Your task to perform on an android device: Open Google Chrome and open the bookmarks view Image 0: 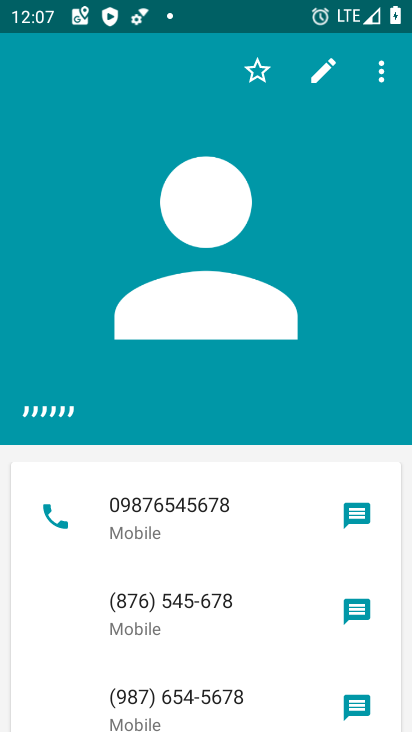
Step 0: press home button
Your task to perform on an android device: Open Google Chrome and open the bookmarks view Image 1: 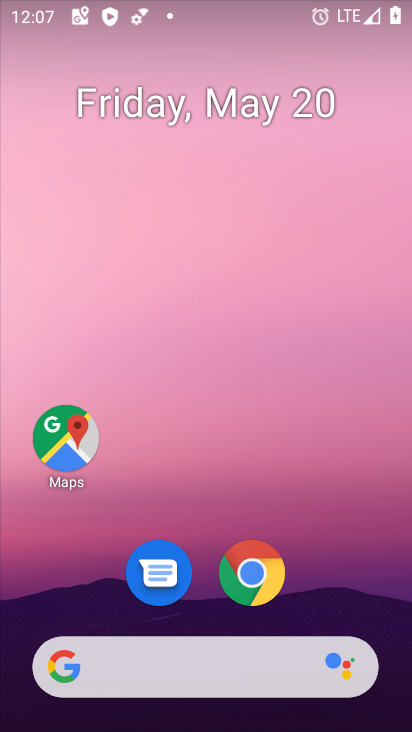
Step 1: click (264, 572)
Your task to perform on an android device: Open Google Chrome and open the bookmarks view Image 2: 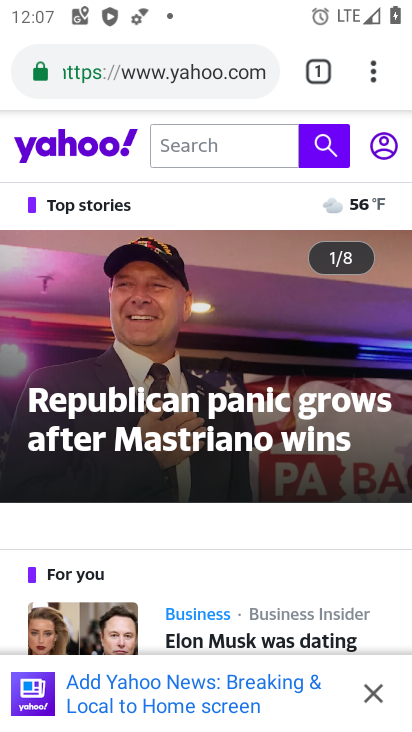
Step 2: click (372, 65)
Your task to perform on an android device: Open Google Chrome and open the bookmarks view Image 3: 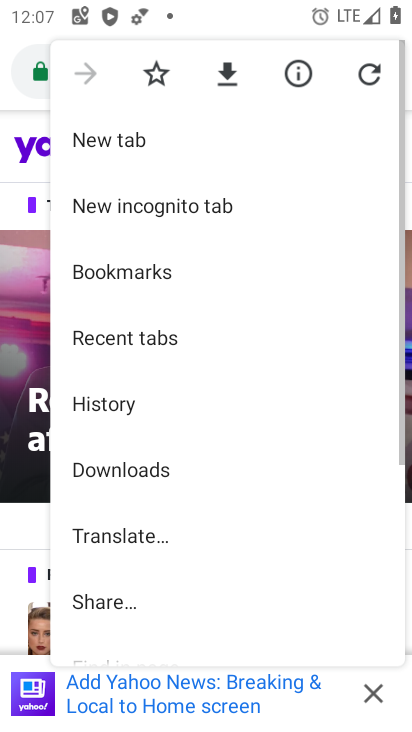
Step 3: click (180, 272)
Your task to perform on an android device: Open Google Chrome and open the bookmarks view Image 4: 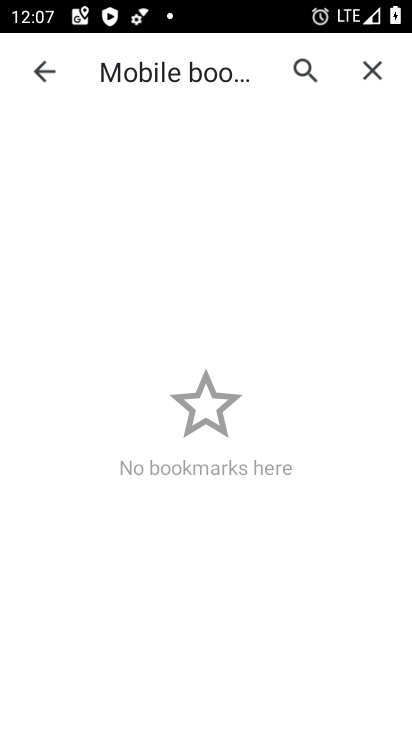
Step 4: task complete